Your task to perform on an android device: What's the weather today? Image 0: 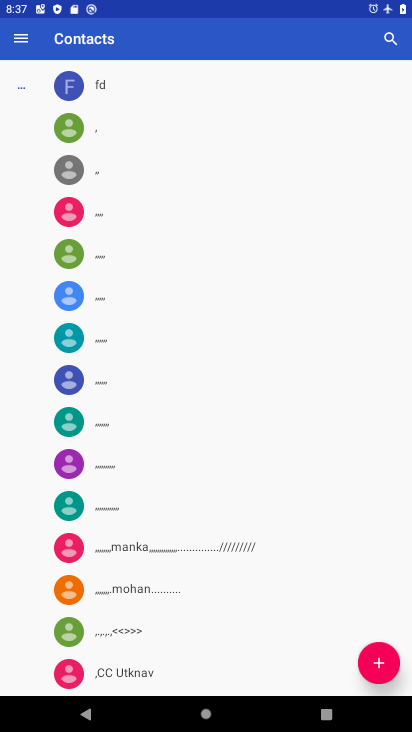
Step 0: press home button
Your task to perform on an android device: What's the weather today? Image 1: 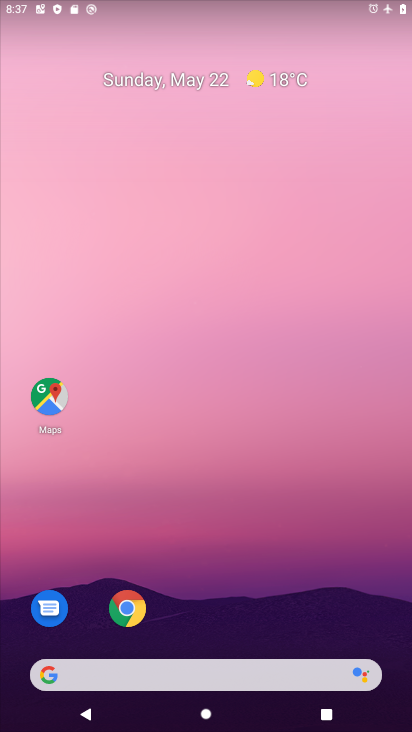
Step 1: click (253, 79)
Your task to perform on an android device: What's the weather today? Image 2: 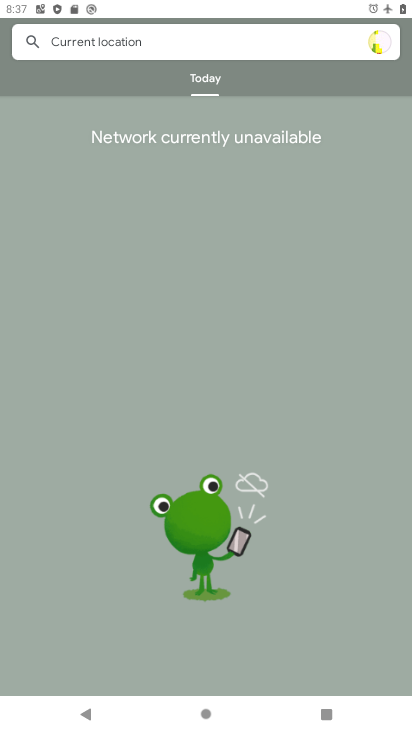
Step 2: task complete